Your task to perform on an android device: delete browsing data in the chrome app Image 0: 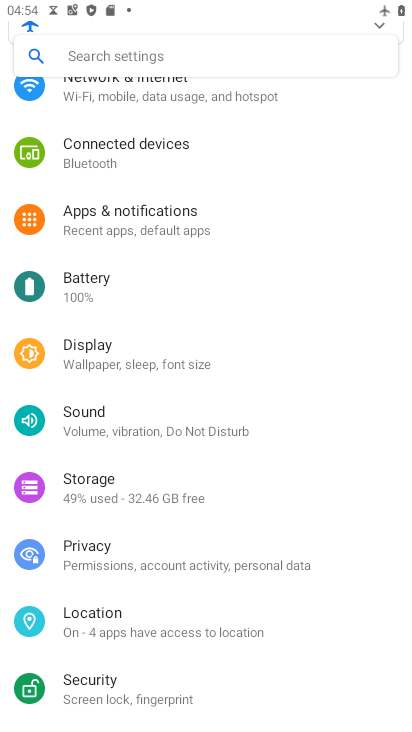
Step 0: press home button
Your task to perform on an android device: delete browsing data in the chrome app Image 1: 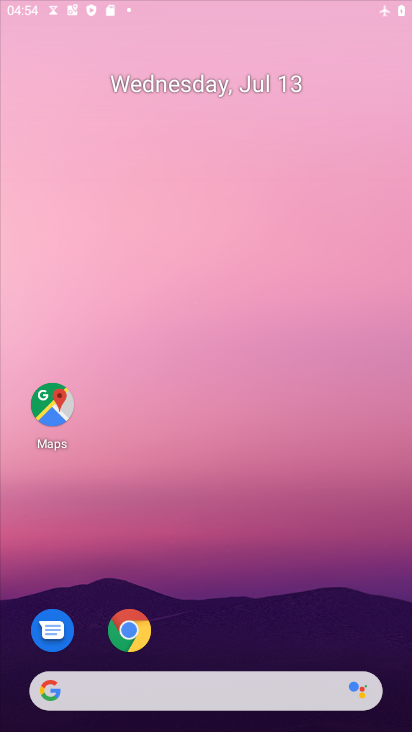
Step 1: drag from (284, 698) to (305, 30)
Your task to perform on an android device: delete browsing data in the chrome app Image 2: 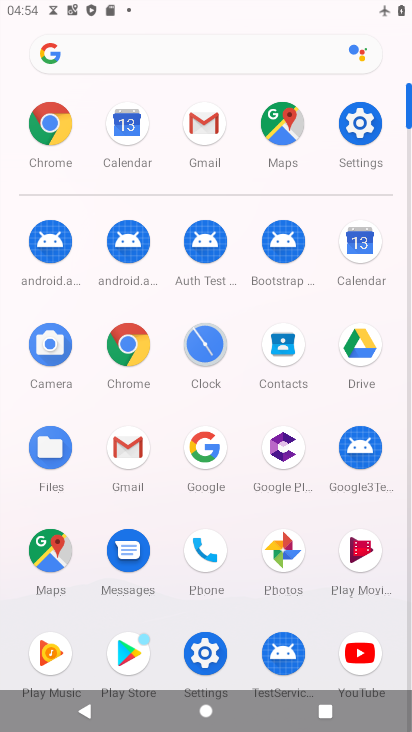
Step 2: click (133, 344)
Your task to perform on an android device: delete browsing data in the chrome app Image 3: 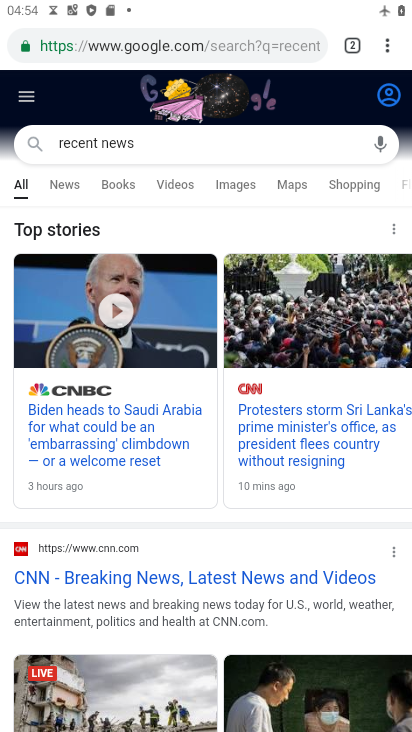
Step 3: drag from (384, 40) to (239, 251)
Your task to perform on an android device: delete browsing data in the chrome app Image 4: 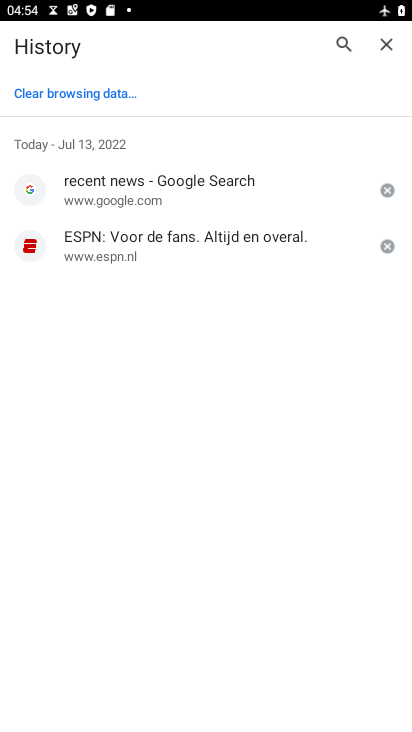
Step 4: click (87, 89)
Your task to perform on an android device: delete browsing data in the chrome app Image 5: 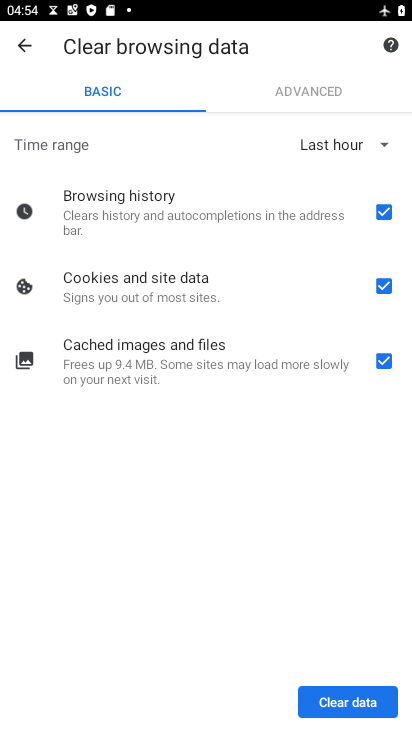
Step 5: click (370, 714)
Your task to perform on an android device: delete browsing data in the chrome app Image 6: 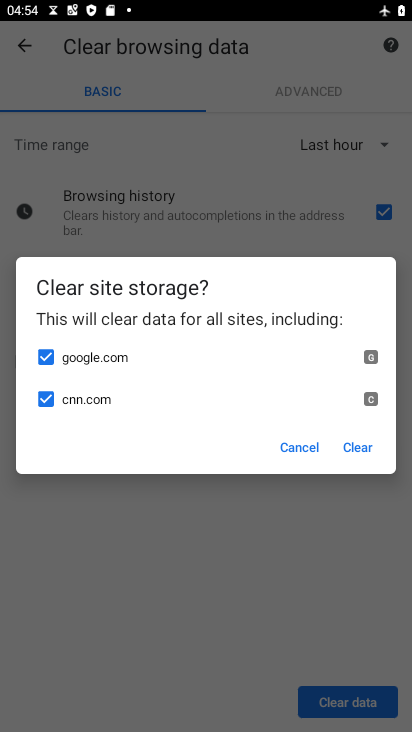
Step 6: click (358, 443)
Your task to perform on an android device: delete browsing data in the chrome app Image 7: 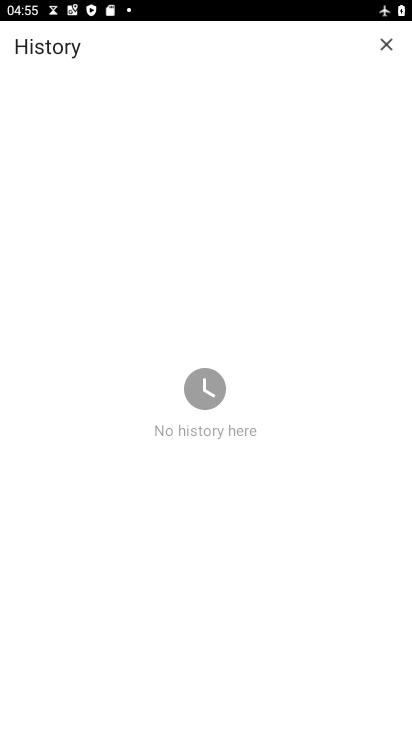
Step 7: task complete